Your task to perform on an android device: find snoozed emails in the gmail app Image 0: 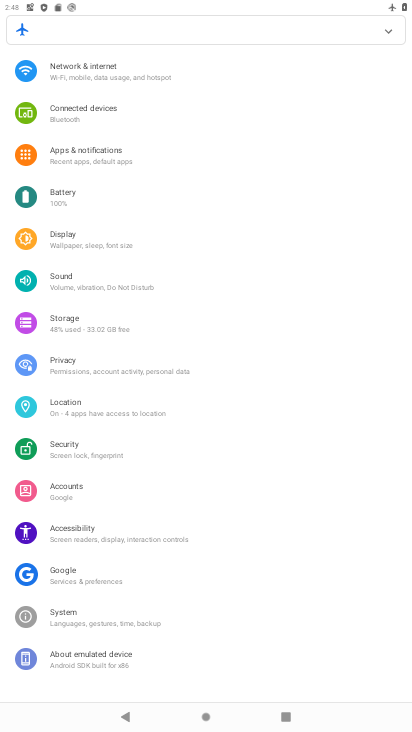
Step 0: press home button
Your task to perform on an android device: find snoozed emails in the gmail app Image 1: 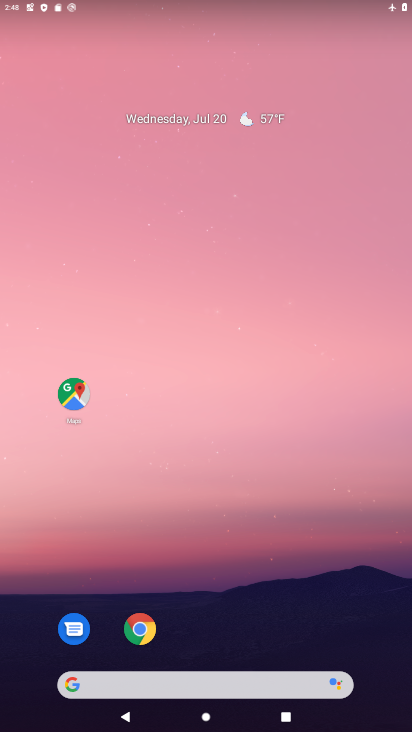
Step 1: drag from (186, 618) to (196, 150)
Your task to perform on an android device: find snoozed emails in the gmail app Image 2: 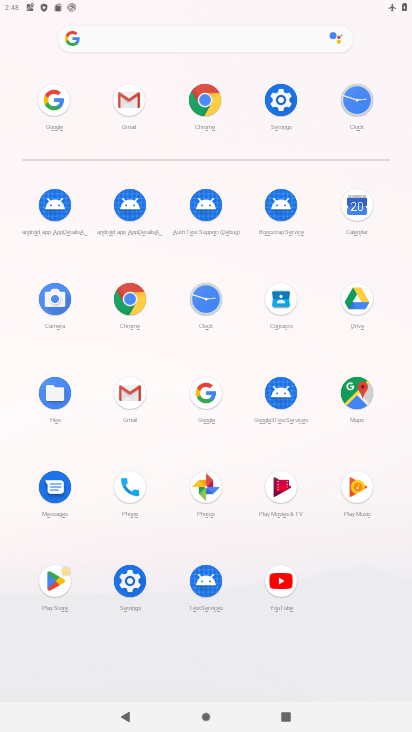
Step 2: click (133, 104)
Your task to perform on an android device: find snoozed emails in the gmail app Image 3: 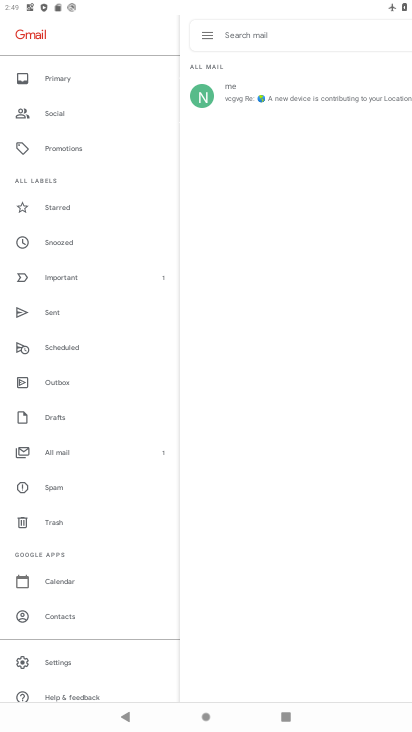
Step 3: click (59, 666)
Your task to perform on an android device: find snoozed emails in the gmail app Image 4: 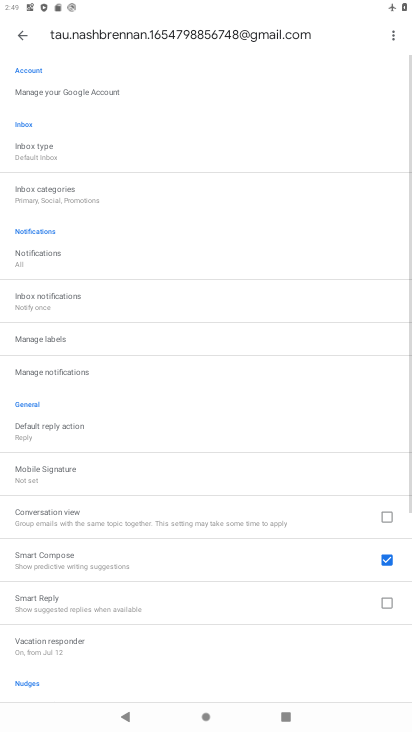
Step 4: click (22, 39)
Your task to perform on an android device: find snoozed emails in the gmail app Image 5: 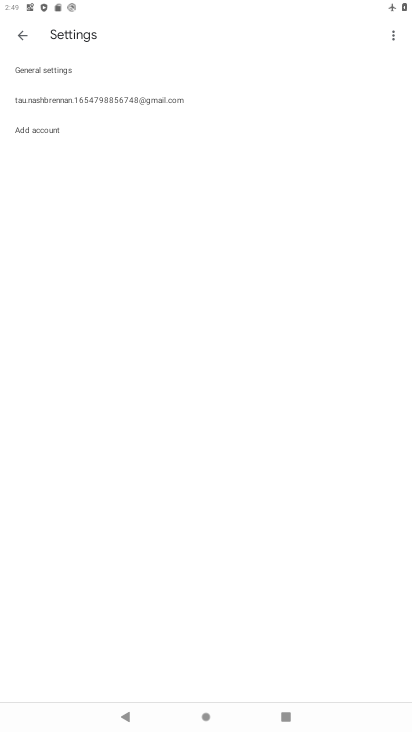
Step 5: click (27, 39)
Your task to perform on an android device: find snoozed emails in the gmail app Image 6: 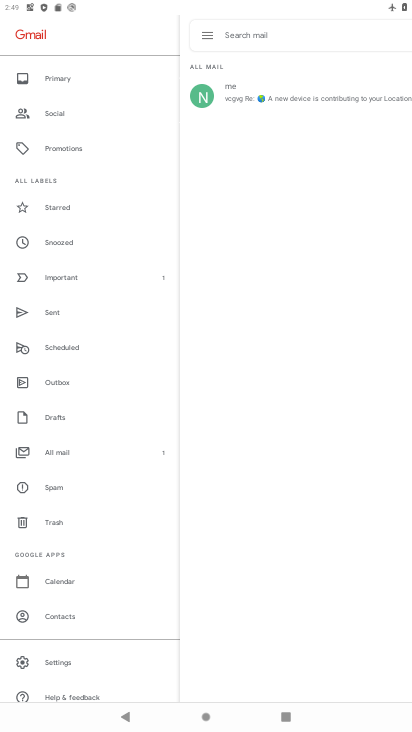
Step 6: click (100, 247)
Your task to perform on an android device: find snoozed emails in the gmail app Image 7: 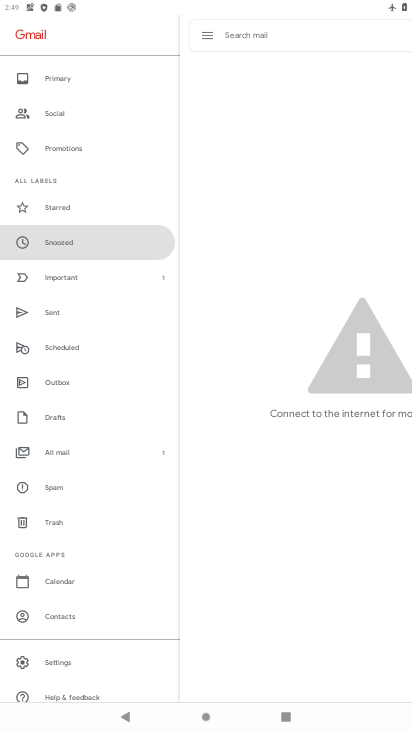
Step 7: task complete